Your task to perform on an android device: turn off picture-in-picture Image 0: 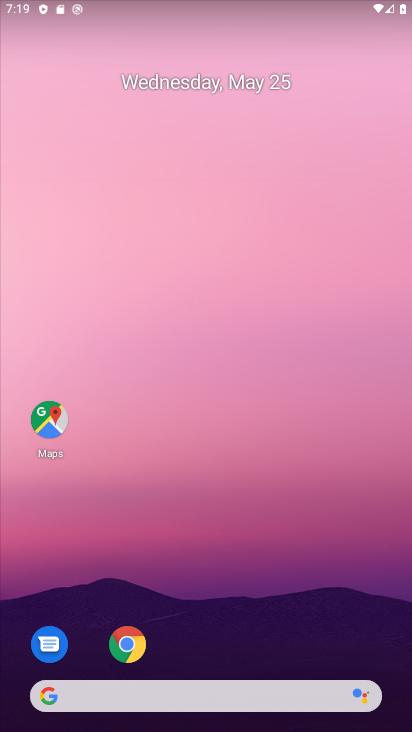
Step 0: click (130, 658)
Your task to perform on an android device: turn off picture-in-picture Image 1: 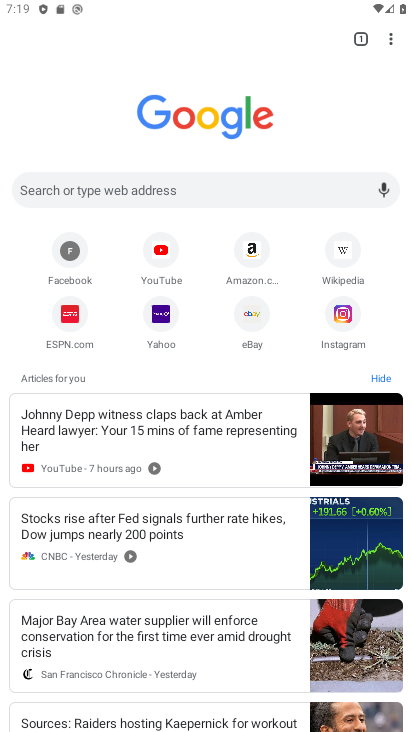
Step 1: press home button
Your task to perform on an android device: turn off picture-in-picture Image 2: 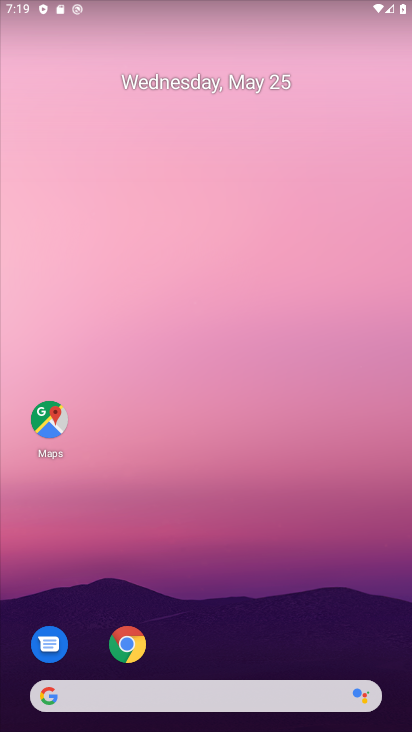
Step 2: drag from (122, 635) to (158, 575)
Your task to perform on an android device: turn off picture-in-picture Image 3: 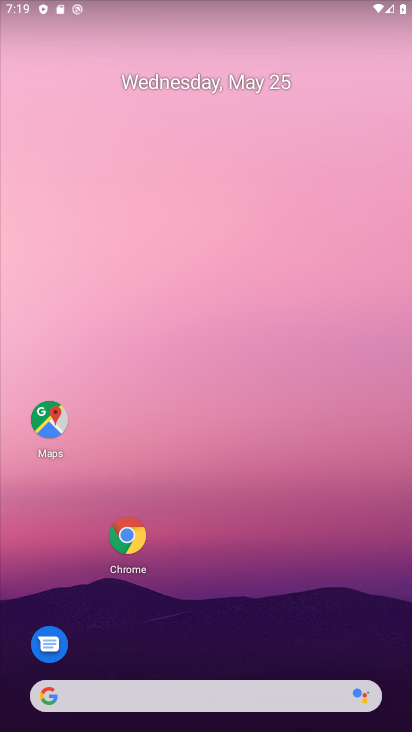
Step 3: click (127, 547)
Your task to perform on an android device: turn off picture-in-picture Image 4: 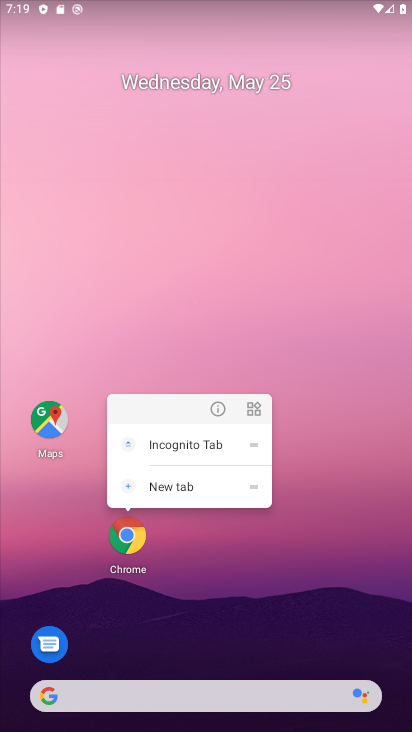
Step 4: click (214, 409)
Your task to perform on an android device: turn off picture-in-picture Image 5: 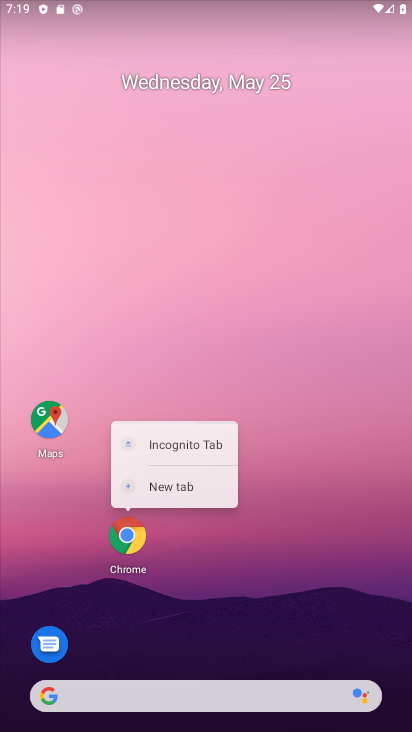
Step 5: click (214, 409)
Your task to perform on an android device: turn off picture-in-picture Image 6: 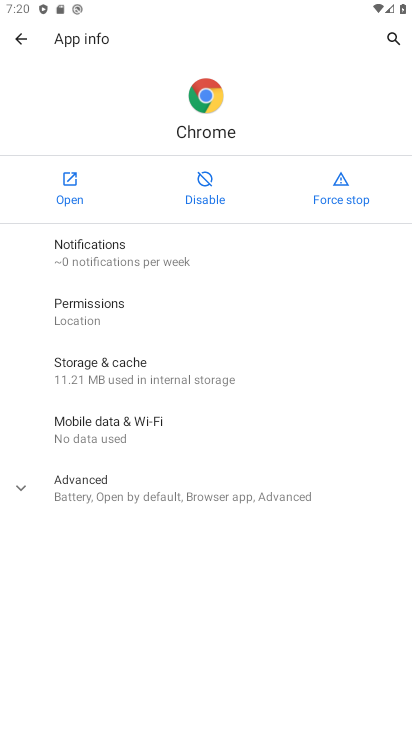
Step 6: click (131, 481)
Your task to perform on an android device: turn off picture-in-picture Image 7: 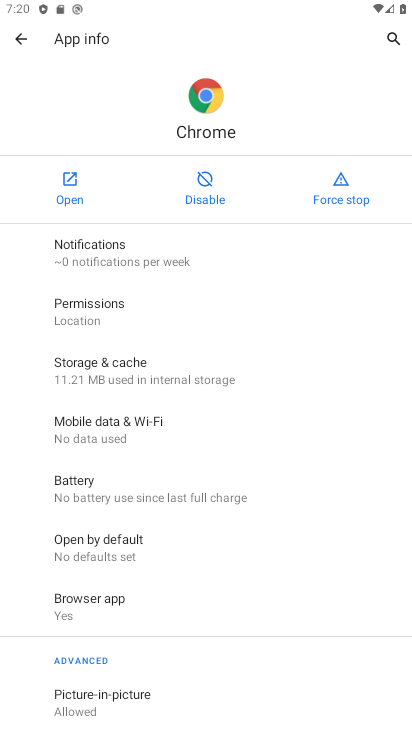
Step 7: click (139, 667)
Your task to perform on an android device: turn off picture-in-picture Image 8: 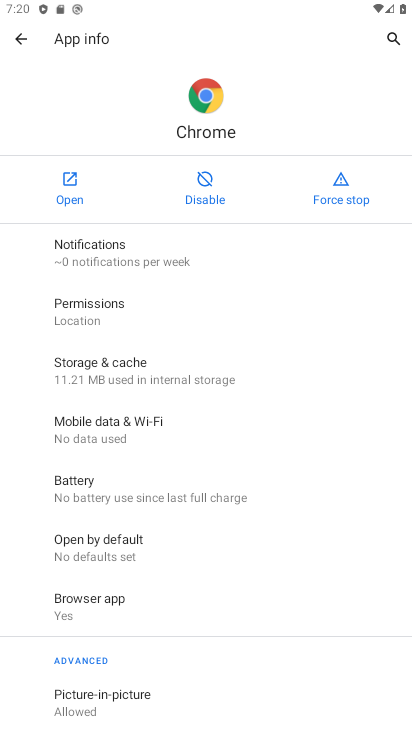
Step 8: click (132, 693)
Your task to perform on an android device: turn off picture-in-picture Image 9: 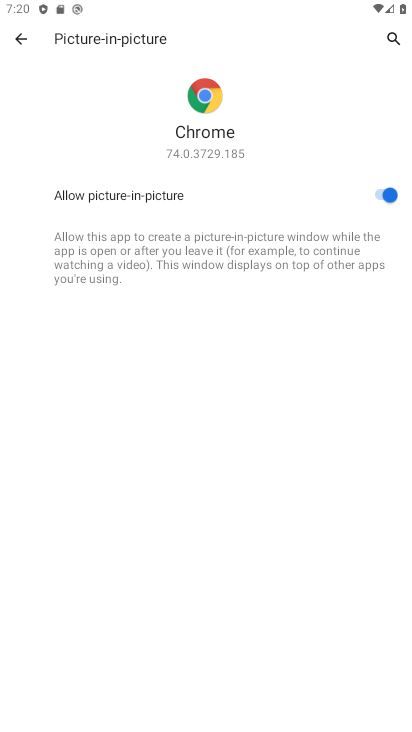
Step 9: click (383, 189)
Your task to perform on an android device: turn off picture-in-picture Image 10: 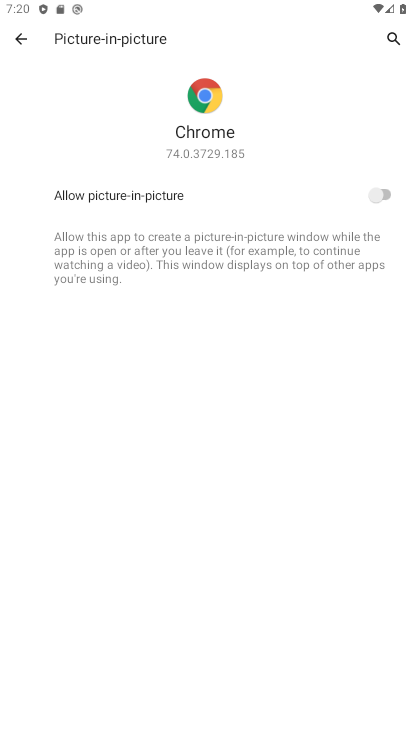
Step 10: task complete